Your task to perform on an android device: Open Amazon Image 0: 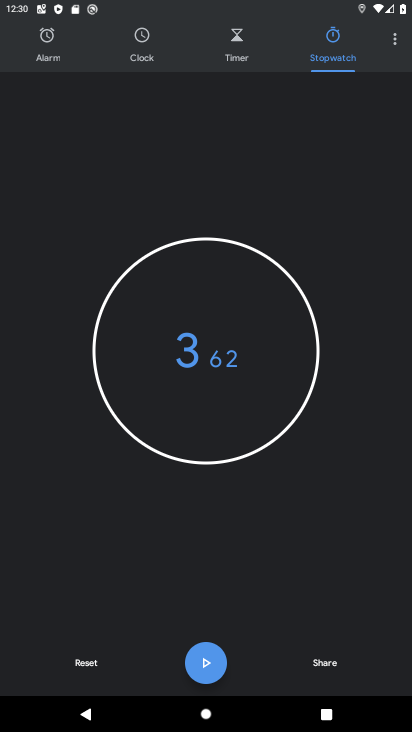
Step 0: press home button
Your task to perform on an android device: Open Amazon Image 1: 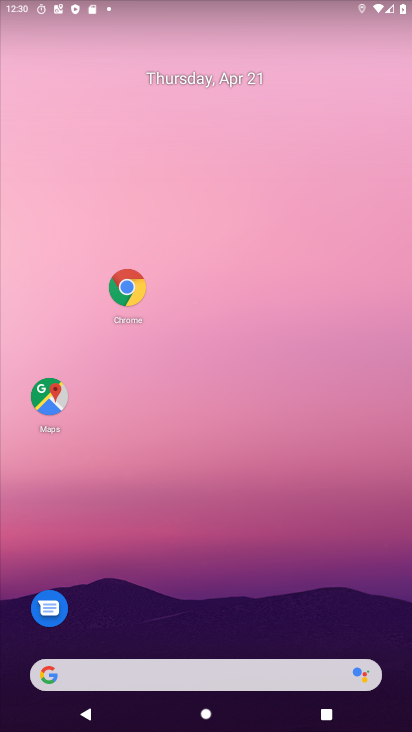
Step 1: click (130, 293)
Your task to perform on an android device: Open Amazon Image 2: 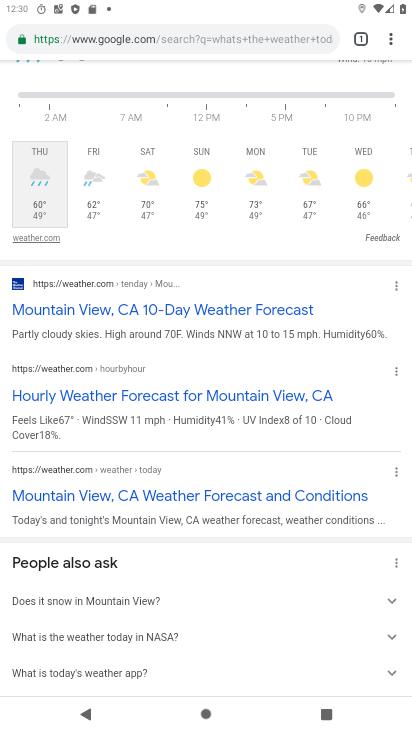
Step 2: click (360, 32)
Your task to perform on an android device: Open Amazon Image 3: 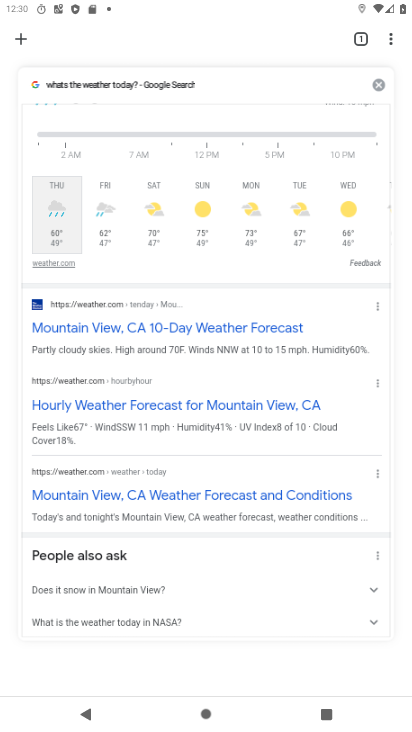
Step 3: click (23, 42)
Your task to perform on an android device: Open Amazon Image 4: 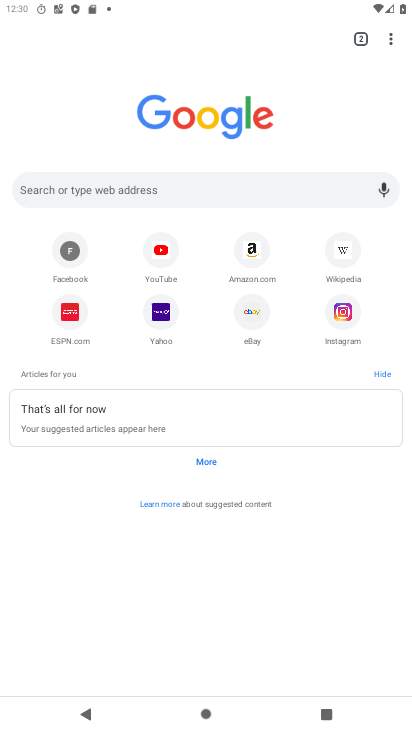
Step 4: click (253, 240)
Your task to perform on an android device: Open Amazon Image 5: 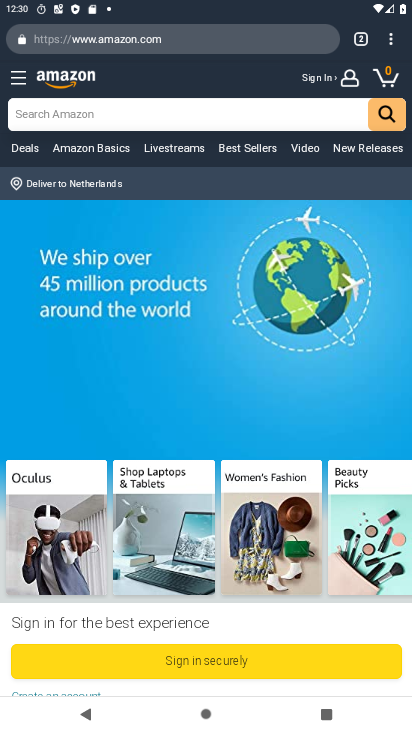
Step 5: task complete